Your task to perform on an android device: Go to Reddit.com Image 0: 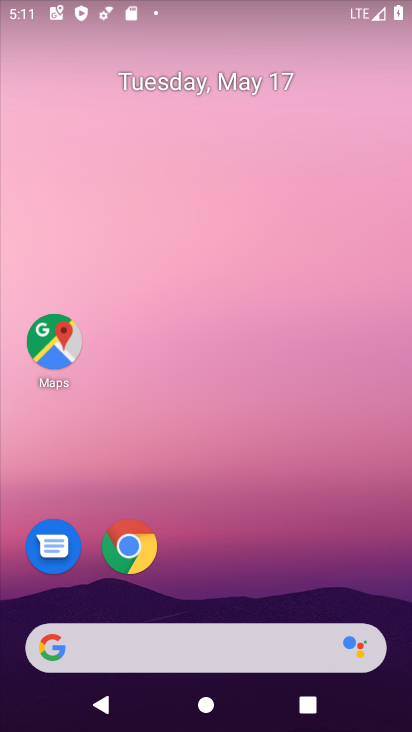
Step 0: click (127, 548)
Your task to perform on an android device: Go to Reddit.com Image 1: 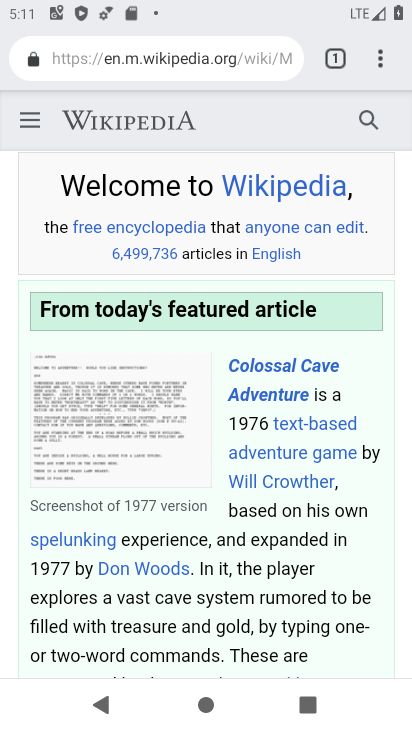
Step 1: press back button
Your task to perform on an android device: Go to Reddit.com Image 2: 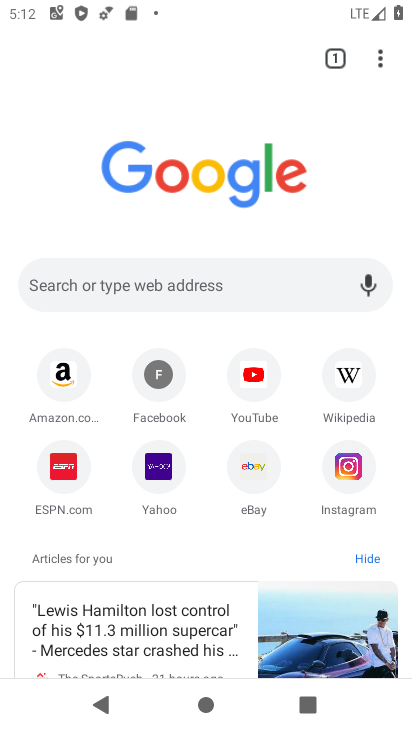
Step 2: click (207, 279)
Your task to perform on an android device: Go to Reddit.com Image 3: 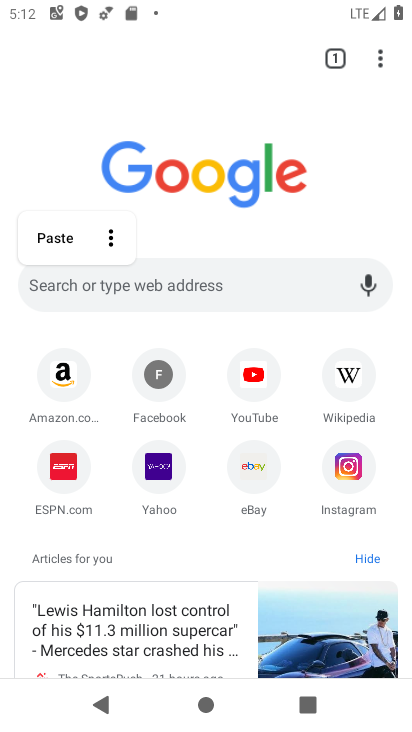
Step 3: type "www.reddit.com"
Your task to perform on an android device: Go to Reddit.com Image 4: 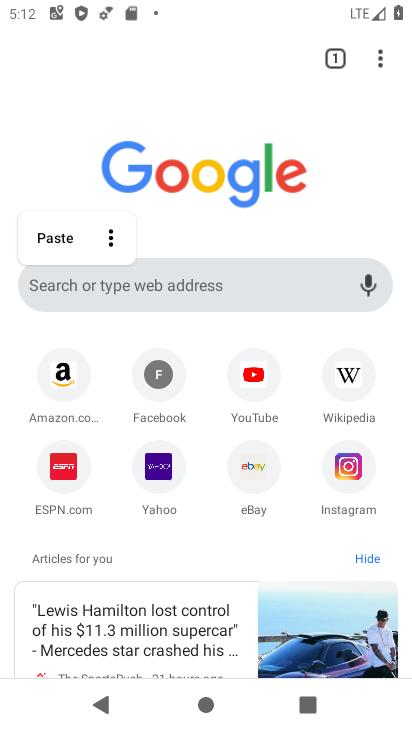
Step 4: click (260, 281)
Your task to perform on an android device: Go to Reddit.com Image 5: 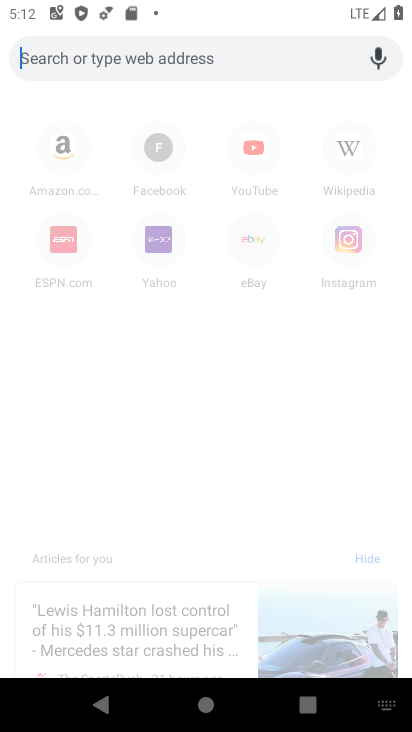
Step 5: type "www.reddit.com"
Your task to perform on an android device: Go to Reddit.com Image 6: 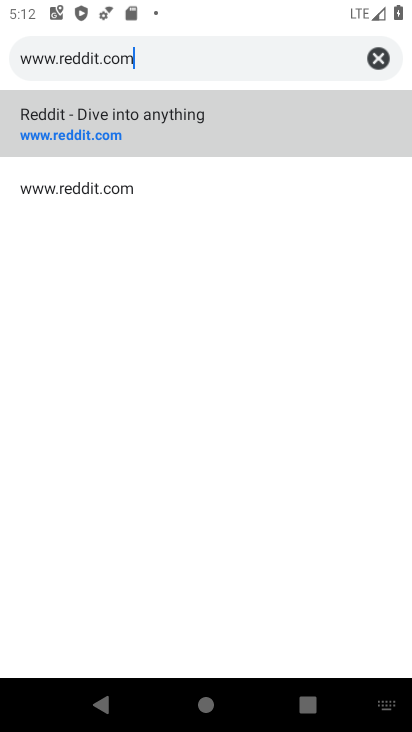
Step 6: click (117, 134)
Your task to perform on an android device: Go to Reddit.com Image 7: 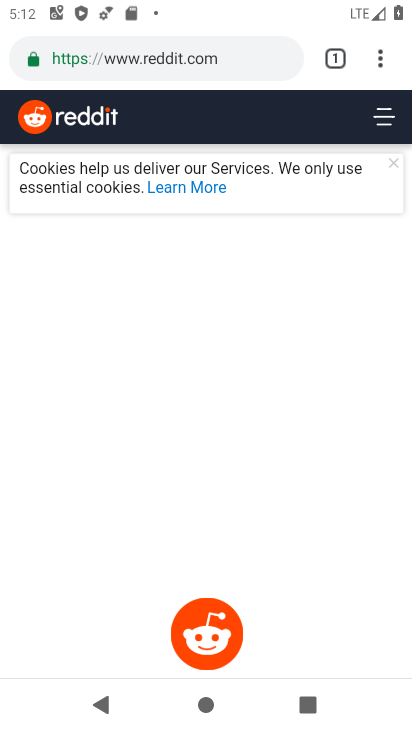
Step 7: task complete